Your task to perform on an android device: open a bookmark in the chrome app Image 0: 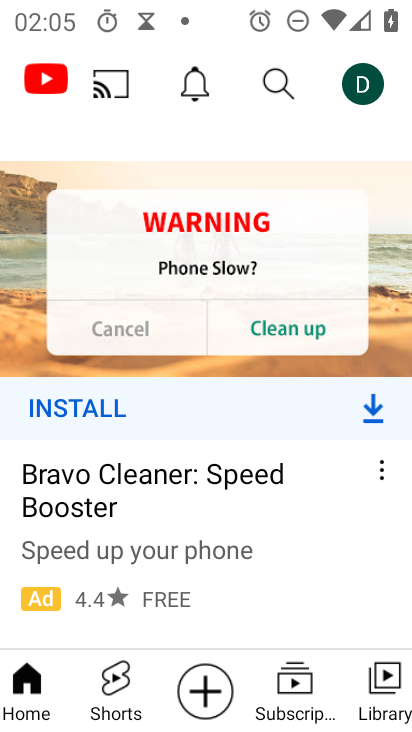
Step 0: press home button
Your task to perform on an android device: open a bookmark in the chrome app Image 1: 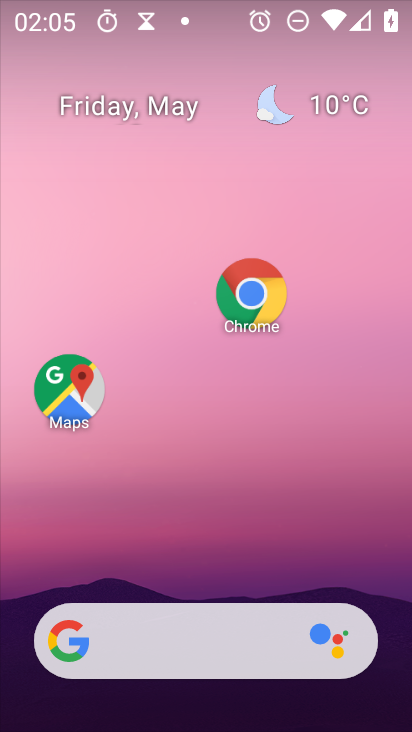
Step 1: click (262, 312)
Your task to perform on an android device: open a bookmark in the chrome app Image 2: 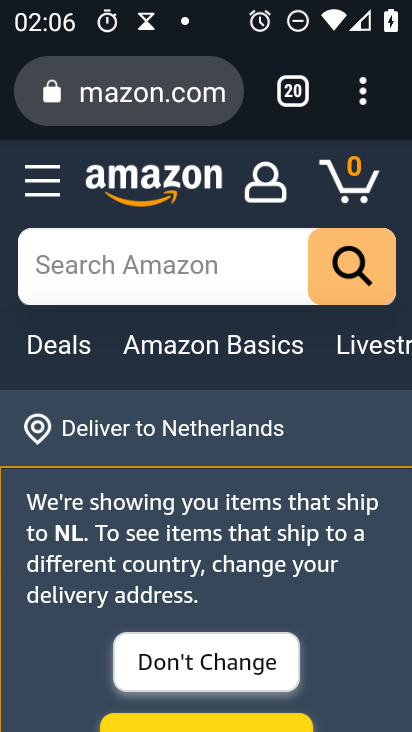
Step 2: task complete